Your task to perform on an android device: Open internet settings Image 0: 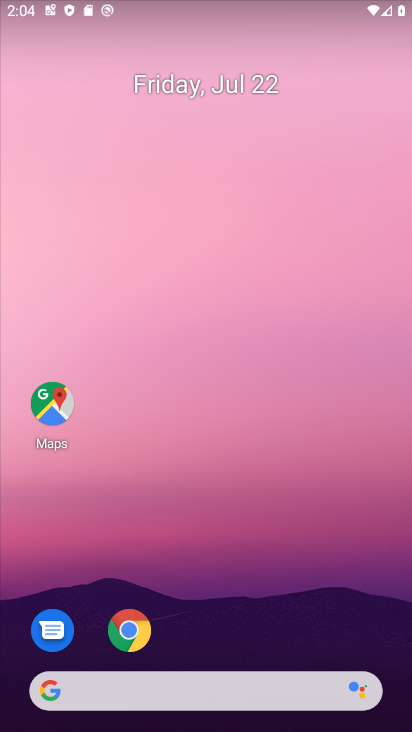
Step 0: drag from (189, 689) to (373, 274)
Your task to perform on an android device: Open internet settings Image 1: 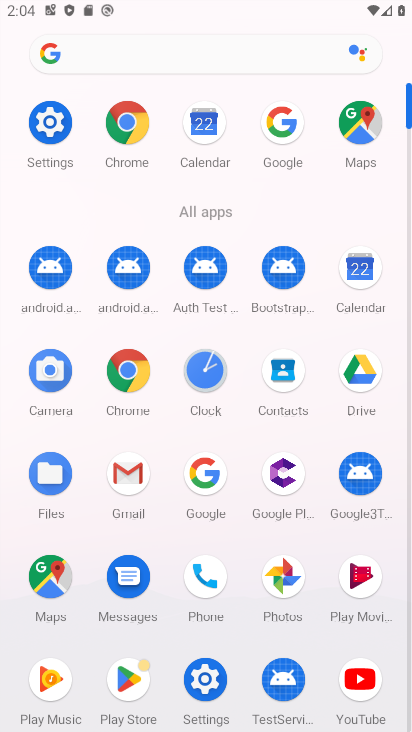
Step 1: click (205, 678)
Your task to perform on an android device: Open internet settings Image 2: 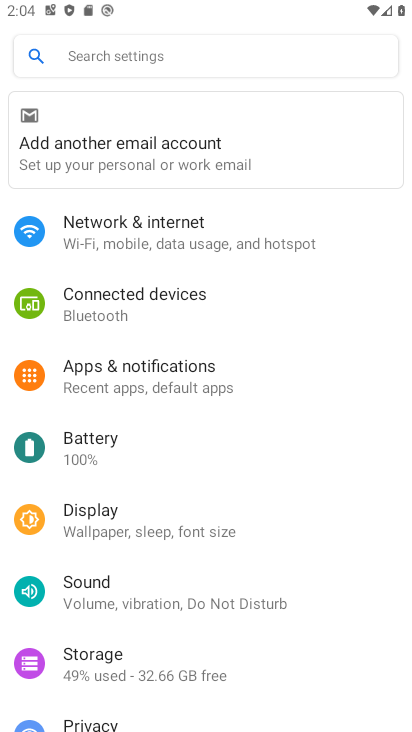
Step 2: click (122, 218)
Your task to perform on an android device: Open internet settings Image 3: 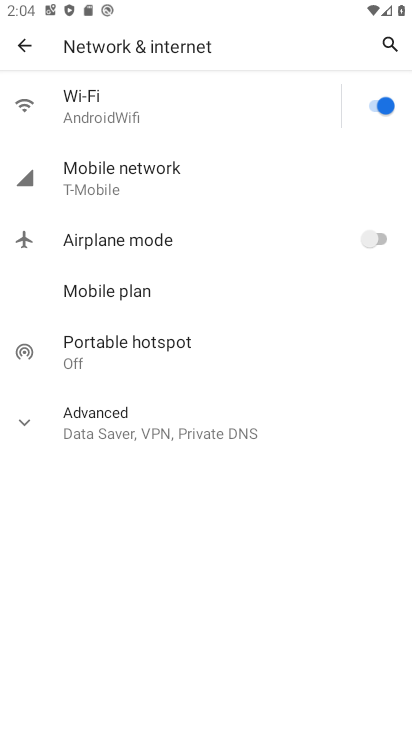
Step 3: click (122, 194)
Your task to perform on an android device: Open internet settings Image 4: 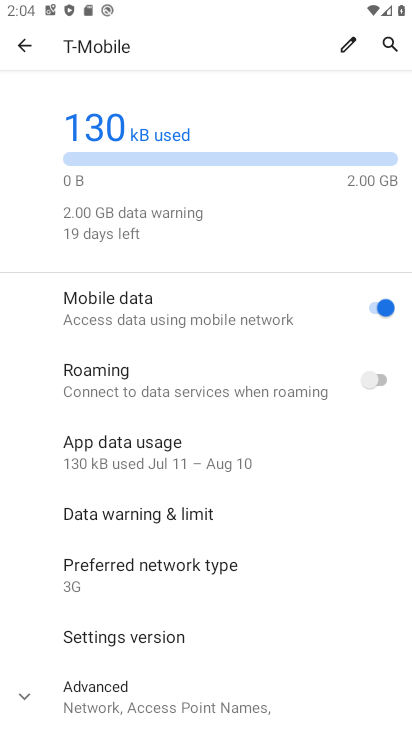
Step 4: task complete